Your task to perform on an android device: Go to Reddit.com Image 0: 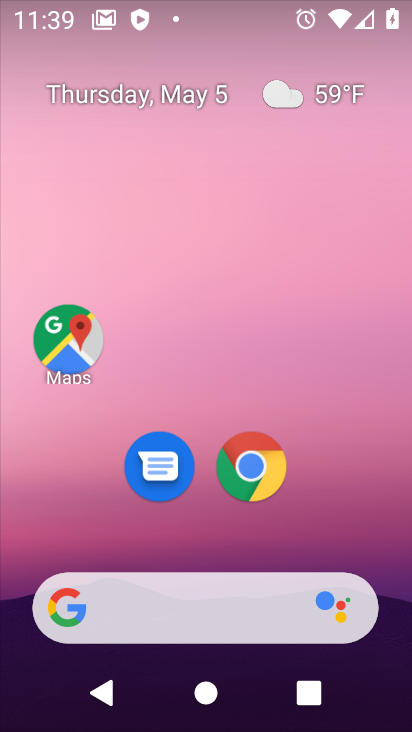
Step 0: click (247, 460)
Your task to perform on an android device: Go to Reddit.com Image 1: 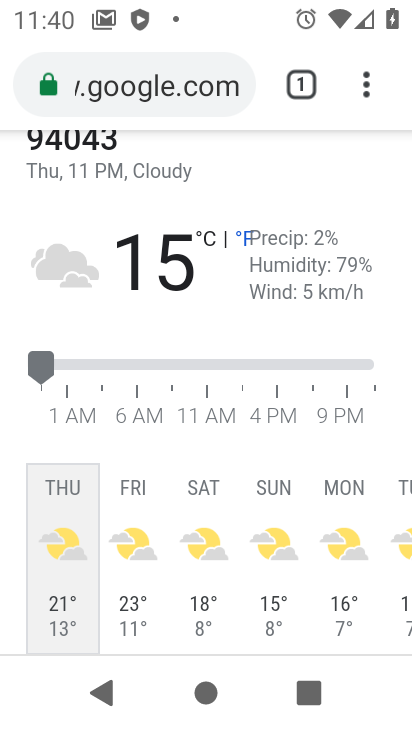
Step 1: click (108, 90)
Your task to perform on an android device: Go to Reddit.com Image 2: 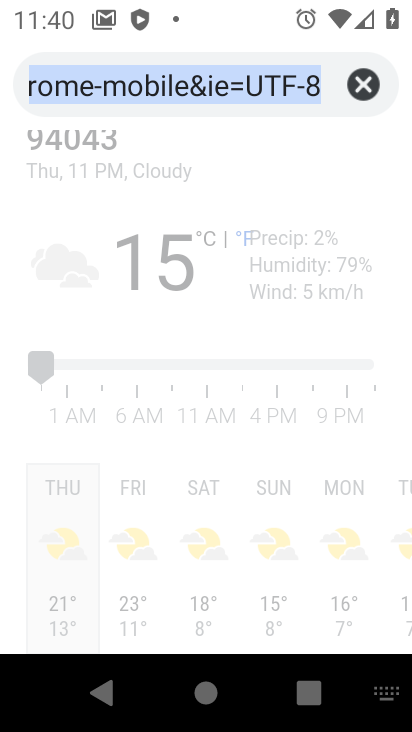
Step 2: type "Reddit.com"
Your task to perform on an android device: Go to Reddit.com Image 3: 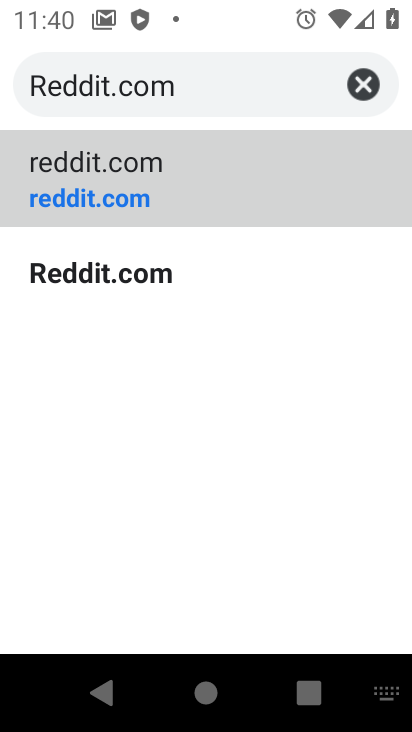
Step 3: click (119, 194)
Your task to perform on an android device: Go to Reddit.com Image 4: 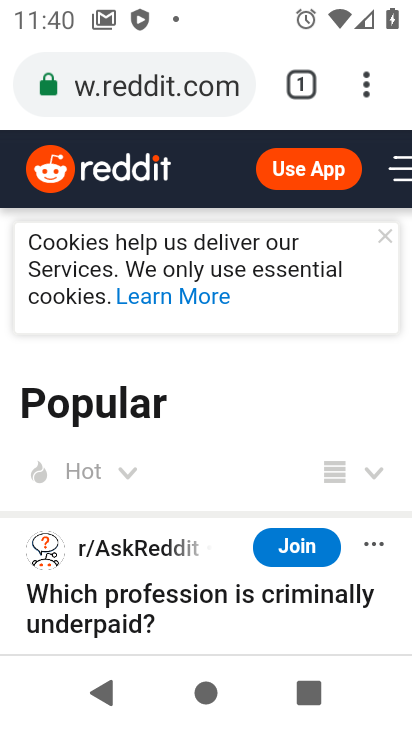
Step 4: task complete